Your task to perform on an android device: set the stopwatch Image 0: 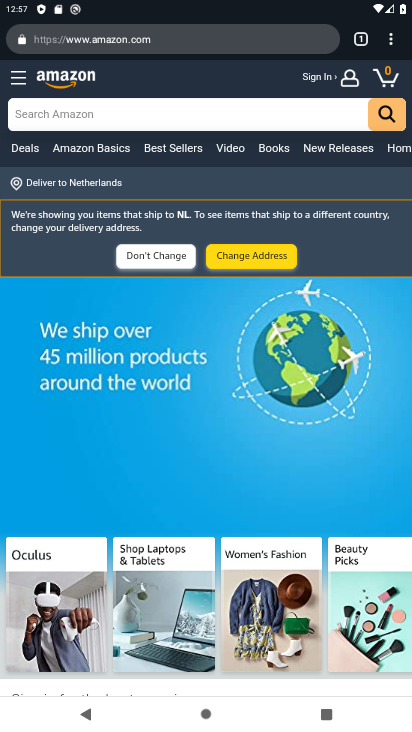
Step 0: press home button
Your task to perform on an android device: set the stopwatch Image 1: 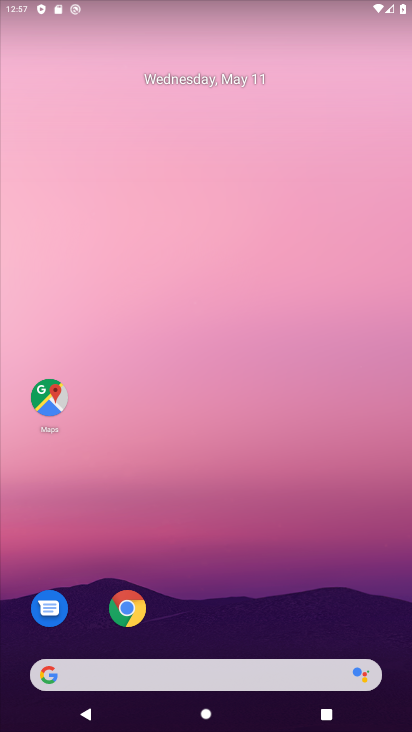
Step 1: drag from (252, 552) to (346, 53)
Your task to perform on an android device: set the stopwatch Image 2: 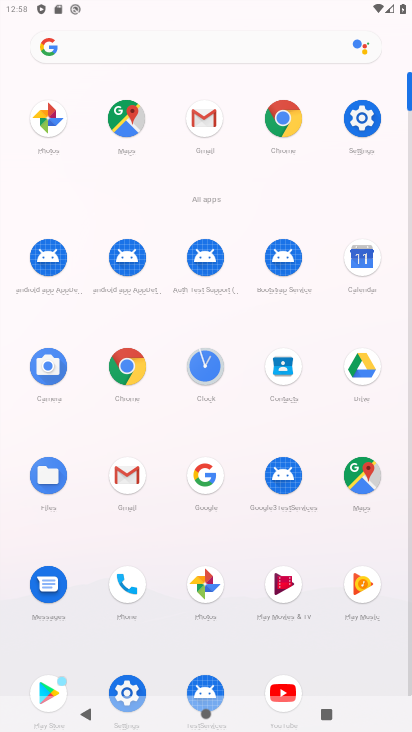
Step 2: click (207, 377)
Your task to perform on an android device: set the stopwatch Image 3: 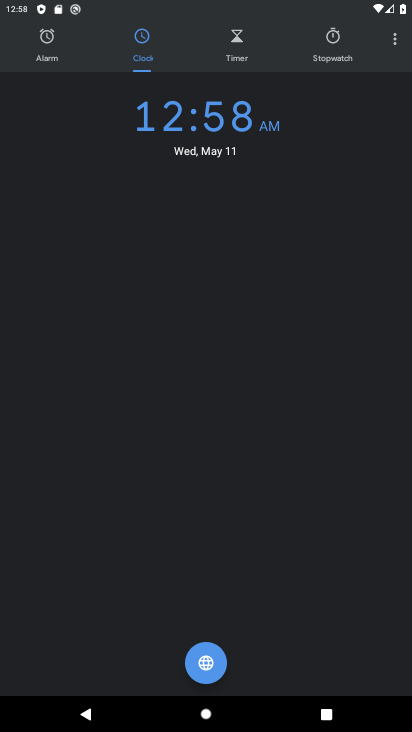
Step 3: click (338, 49)
Your task to perform on an android device: set the stopwatch Image 4: 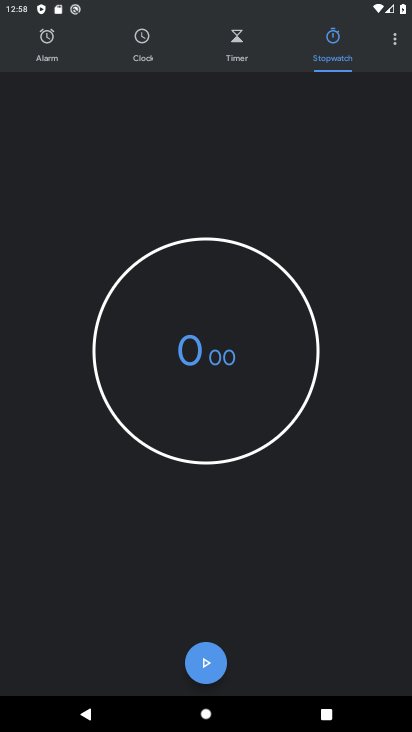
Step 4: click (205, 668)
Your task to perform on an android device: set the stopwatch Image 5: 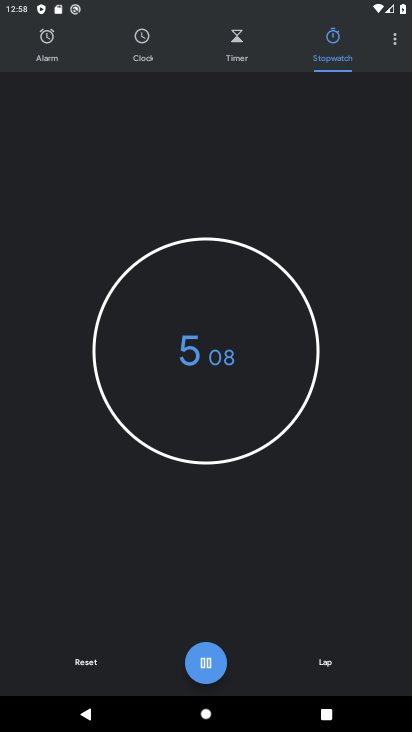
Step 5: click (207, 667)
Your task to perform on an android device: set the stopwatch Image 6: 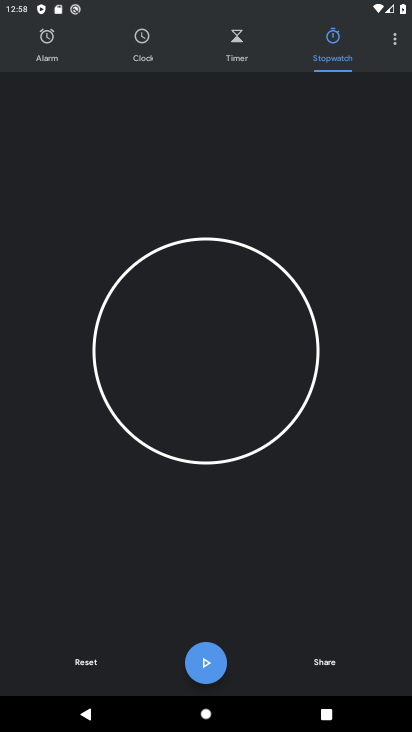
Step 6: task complete